Your task to perform on an android device: Go to eBay Image 0: 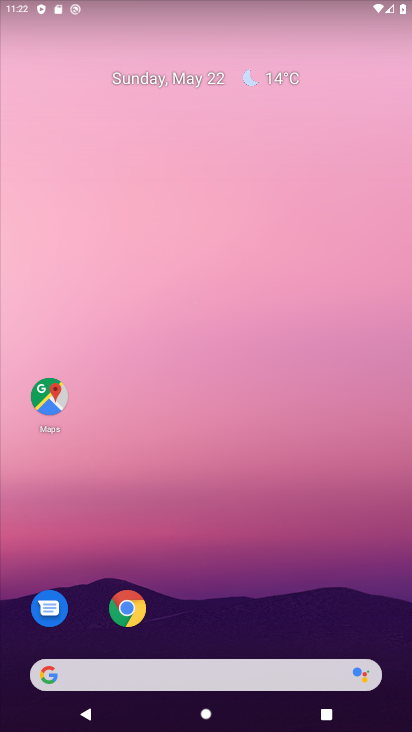
Step 0: click (144, 608)
Your task to perform on an android device: Go to eBay Image 1: 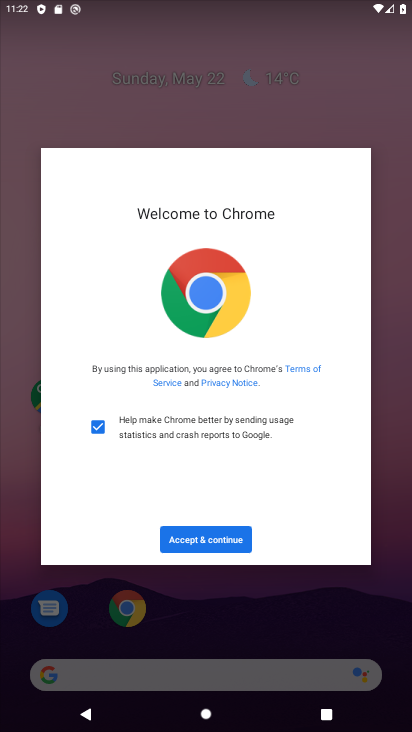
Step 1: click (220, 541)
Your task to perform on an android device: Go to eBay Image 2: 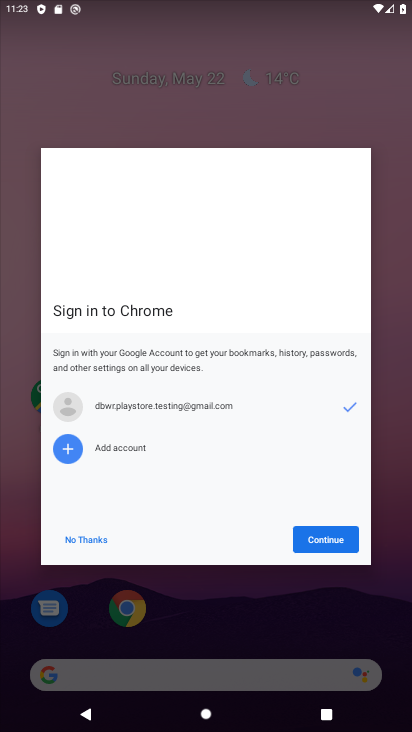
Step 2: click (307, 544)
Your task to perform on an android device: Go to eBay Image 3: 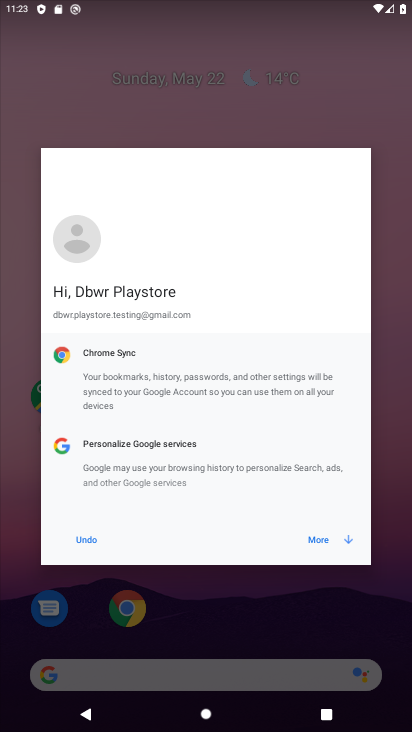
Step 3: click (307, 544)
Your task to perform on an android device: Go to eBay Image 4: 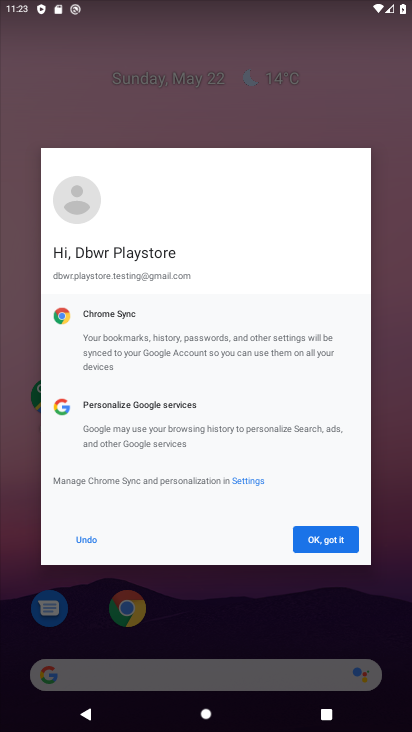
Step 4: click (307, 544)
Your task to perform on an android device: Go to eBay Image 5: 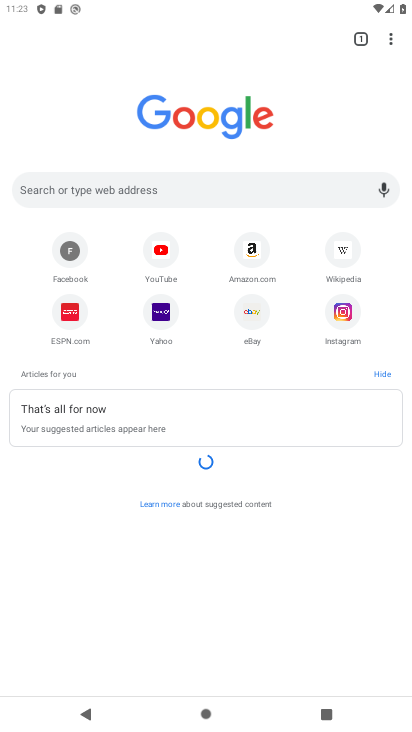
Step 5: click (249, 320)
Your task to perform on an android device: Go to eBay Image 6: 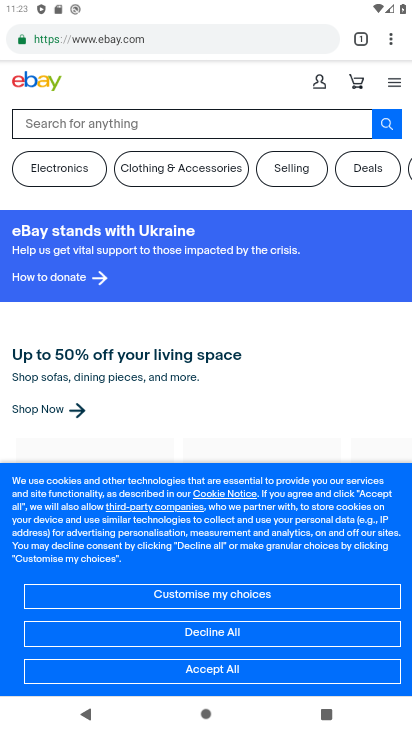
Step 6: task complete